Your task to perform on an android device: Do I have any events today? Image 0: 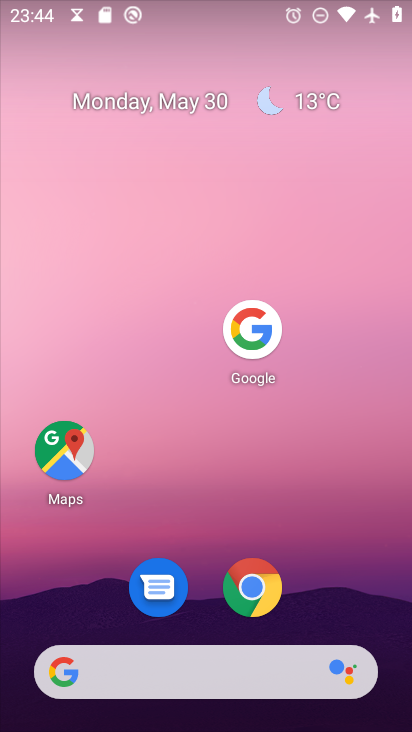
Step 0: press home button
Your task to perform on an android device: Do I have any events today? Image 1: 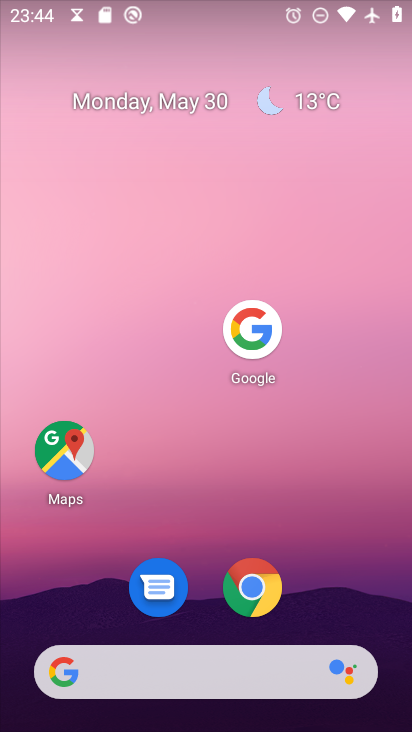
Step 1: drag from (208, 646) to (280, 183)
Your task to perform on an android device: Do I have any events today? Image 2: 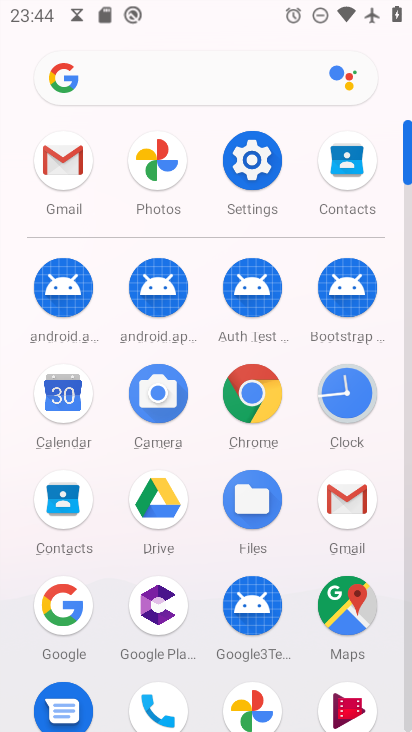
Step 2: click (64, 396)
Your task to perform on an android device: Do I have any events today? Image 3: 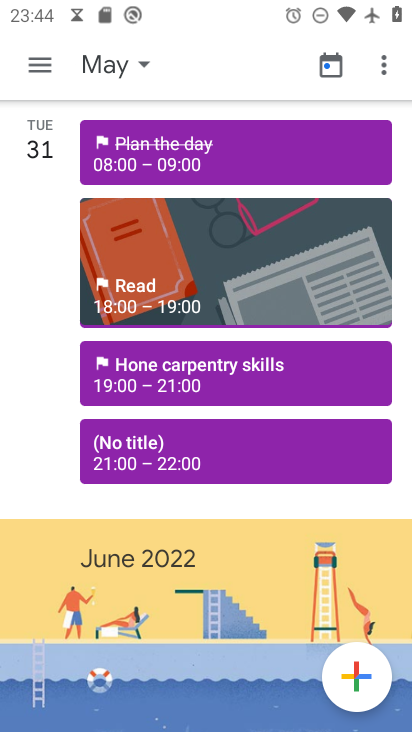
Step 3: click (101, 66)
Your task to perform on an android device: Do I have any events today? Image 4: 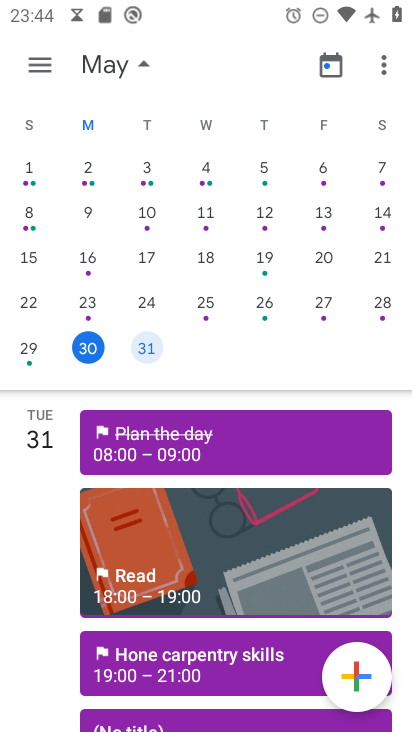
Step 4: click (90, 345)
Your task to perform on an android device: Do I have any events today? Image 5: 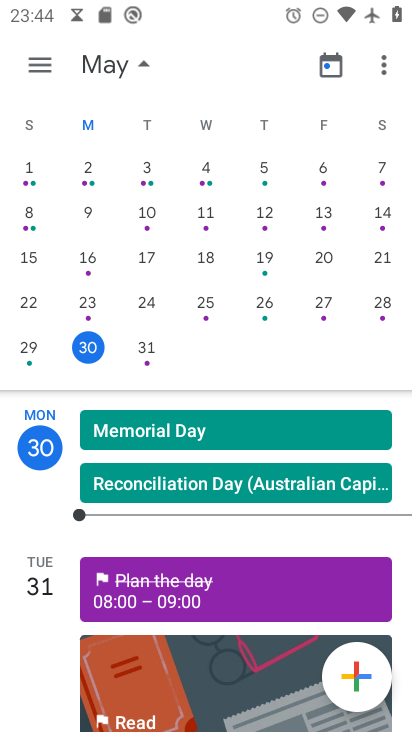
Step 5: click (49, 61)
Your task to perform on an android device: Do I have any events today? Image 6: 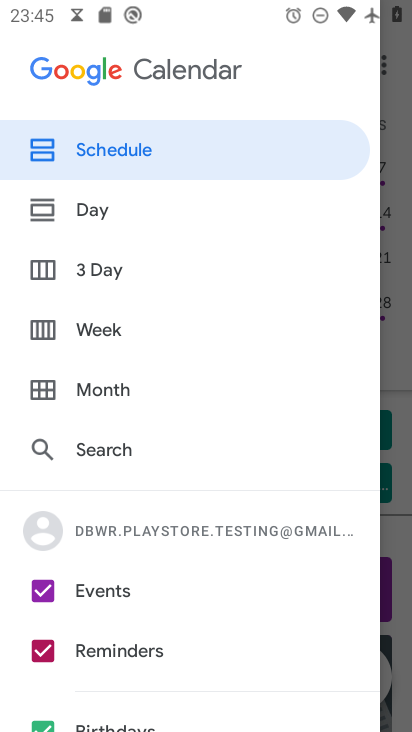
Step 6: click (120, 143)
Your task to perform on an android device: Do I have any events today? Image 7: 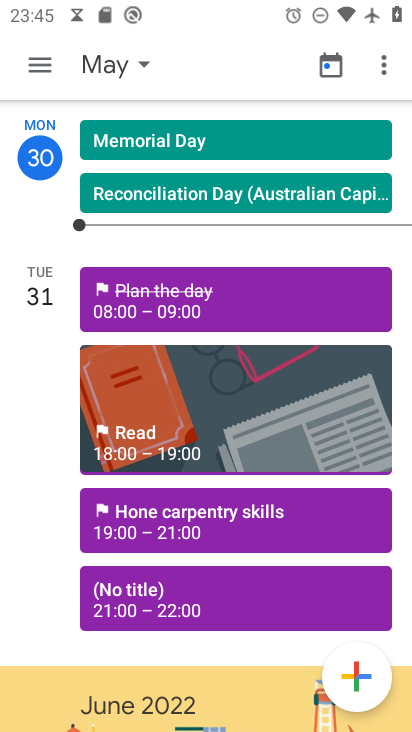
Step 7: task complete